Your task to perform on an android device: Open Wikipedia Image 0: 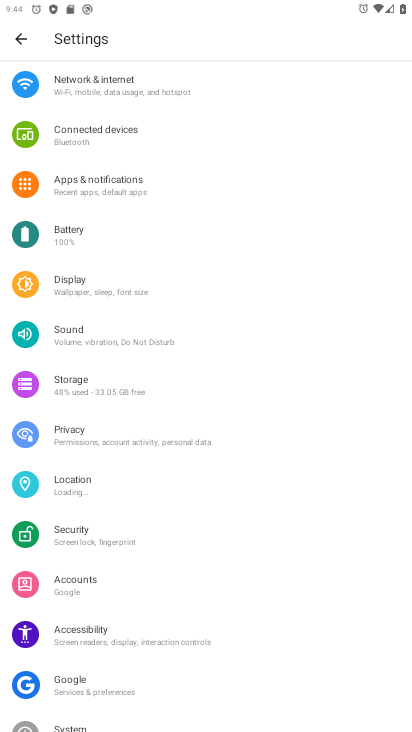
Step 0: press home button
Your task to perform on an android device: Open Wikipedia Image 1: 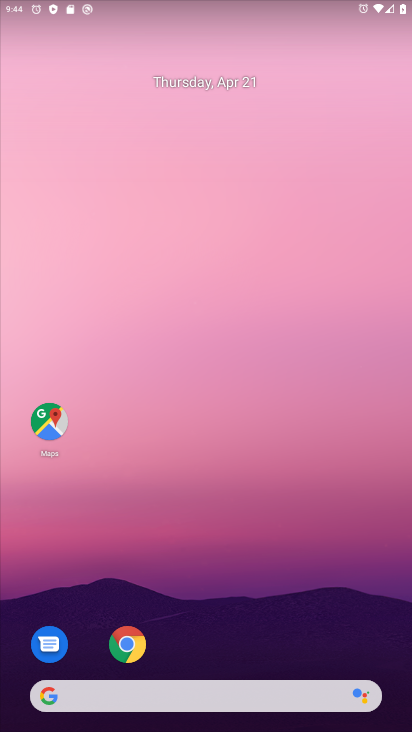
Step 1: click (130, 647)
Your task to perform on an android device: Open Wikipedia Image 2: 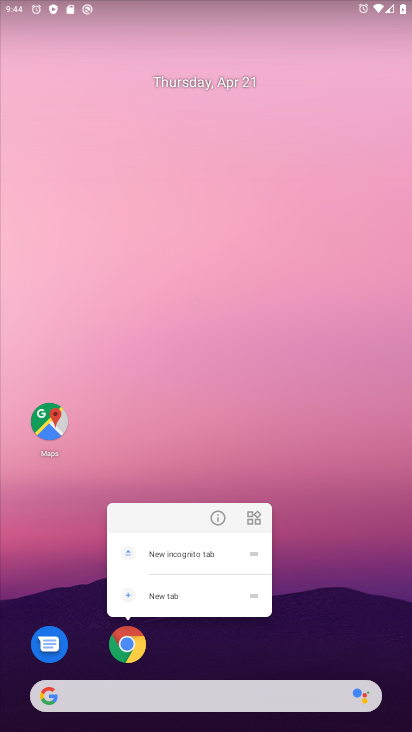
Step 2: click (130, 647)
Your task to perform on an android device: Open Wikipedia Image 3: 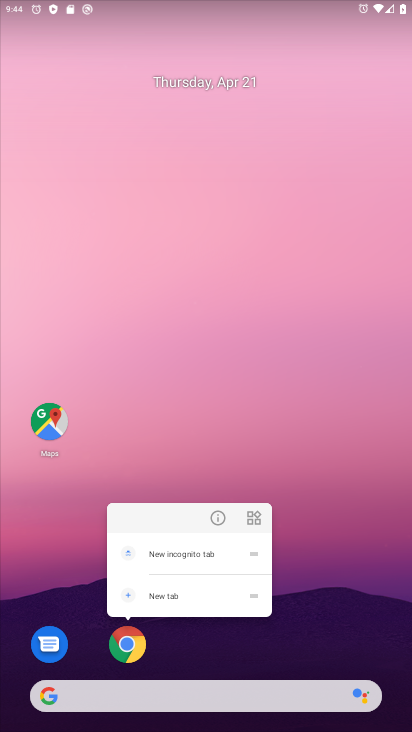
Step 3: click (164, 594)
Your task to perform on an android device: Open Wikipedia Image 4: 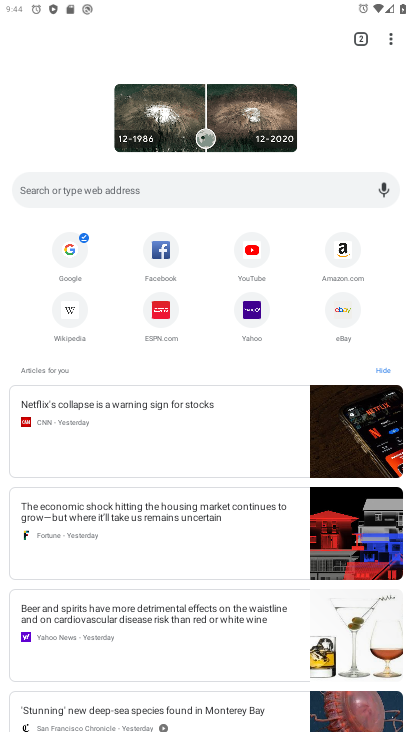
Step 4: click (73, 306)
Your task to perform on an android device: Open Wikipedia Image 5: 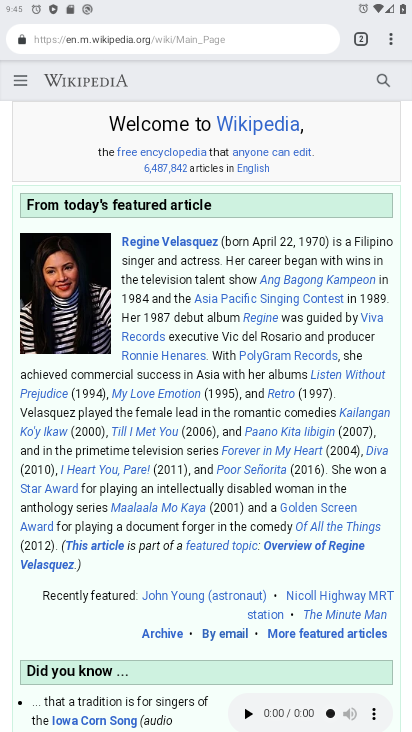
Step 5: task complete